Your task to perform on an android device: Open notification settings Image 0: 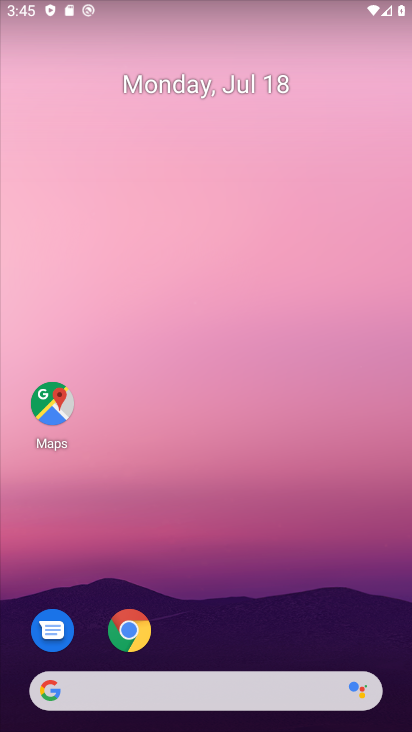
Step 0: drag from (309, 641) to (265, 31)
Your task to perform on an android device: Open notification settings Image 1: 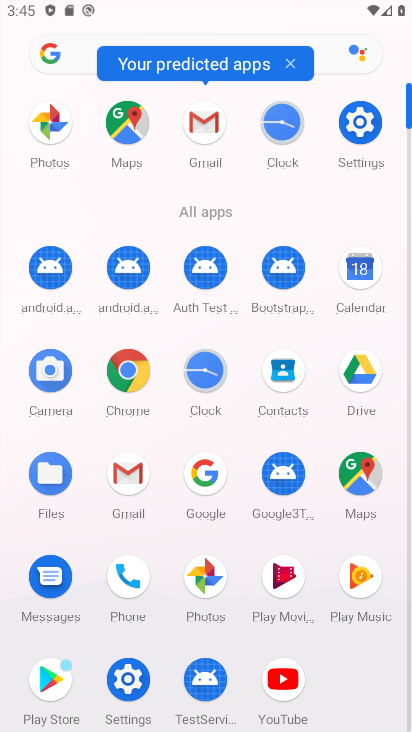
Step 1: click (352, 117)
Your task to perform on an android device: Open notification settings Image 2: 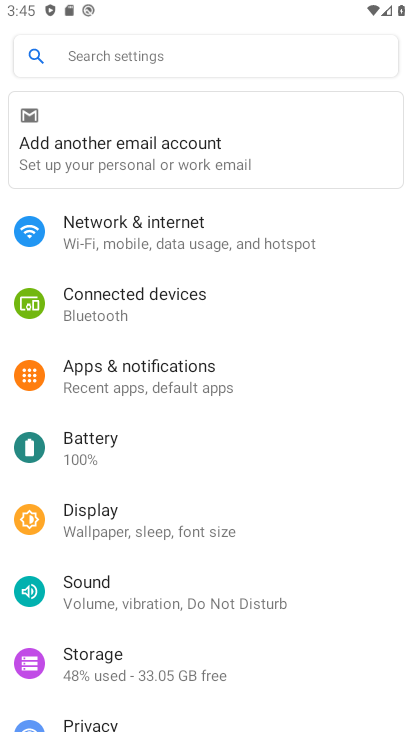
Step 2: click (186, 379)
Your task to perform on an android device: Open notification settings Image 3: 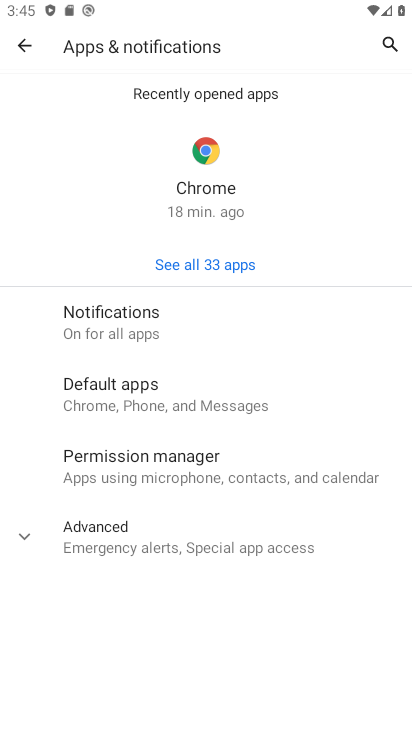
Step 3: click (97, 314)
Your task to perform on an android device: Open notification settings Image 4: 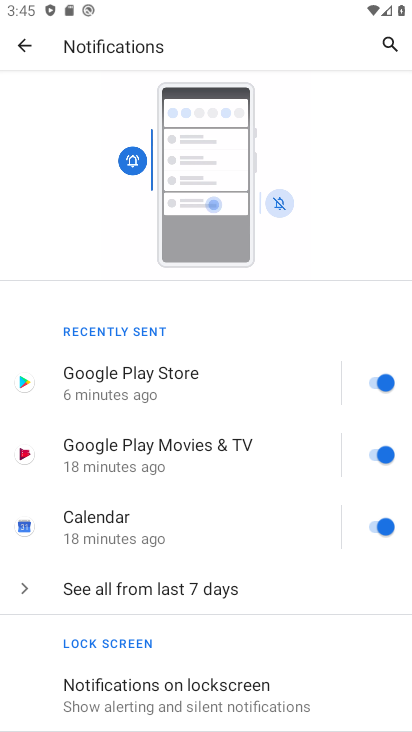
Step 4: task complete